Your task to perform on an android device: Open the web browser Image 0: 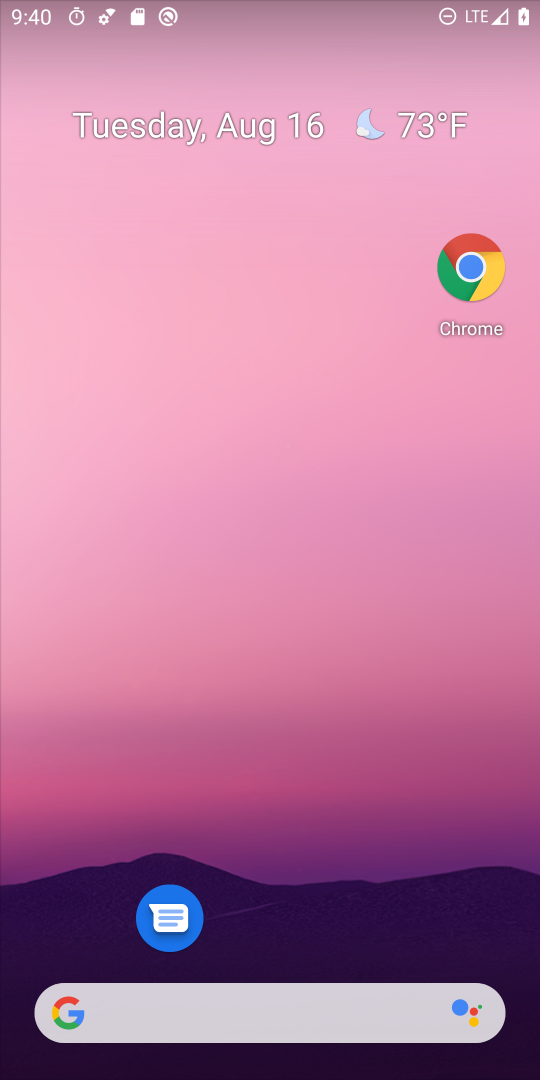
Step 0: drag from (220, 988) to (269, 192)
Your task to perform on an android device: Open the web browser Image 1: 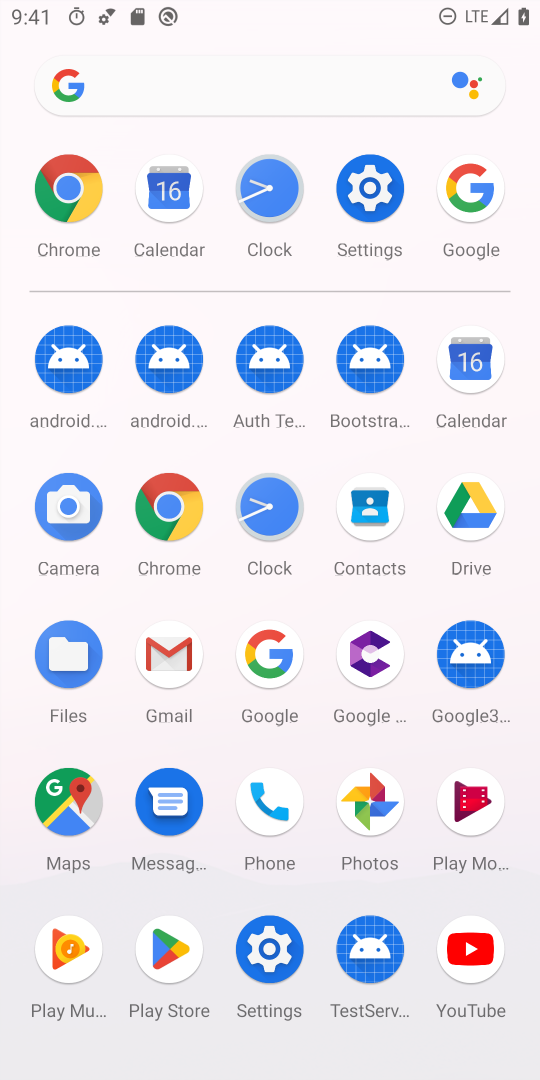
Step 1: drag from (325, 683) to (368, 23)
Your task to perform on an android device: Open the web browser Image 2: 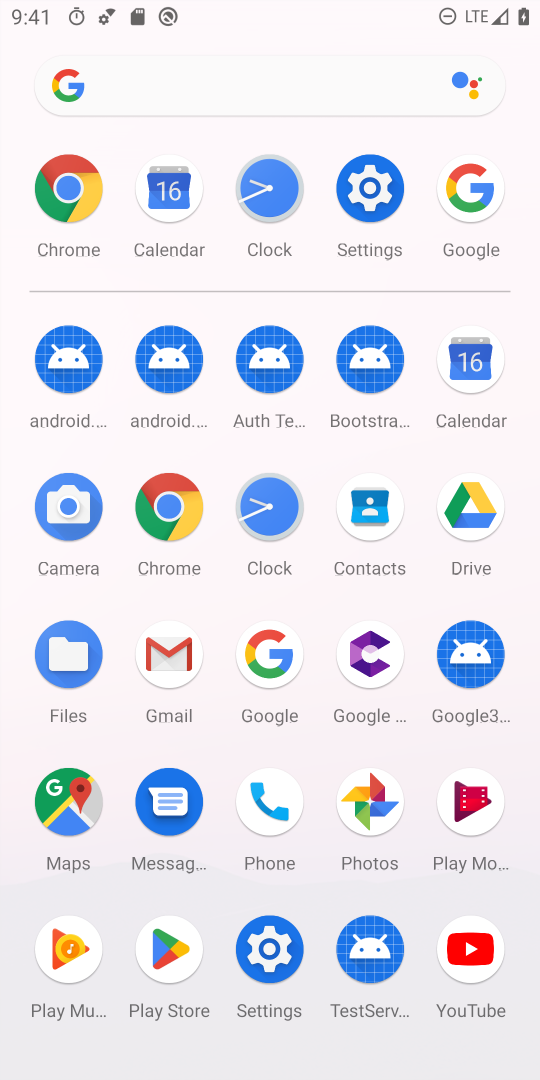
Step 2: click (59, 244)
Your task to perform on an android device: Open the web browser Image 3: 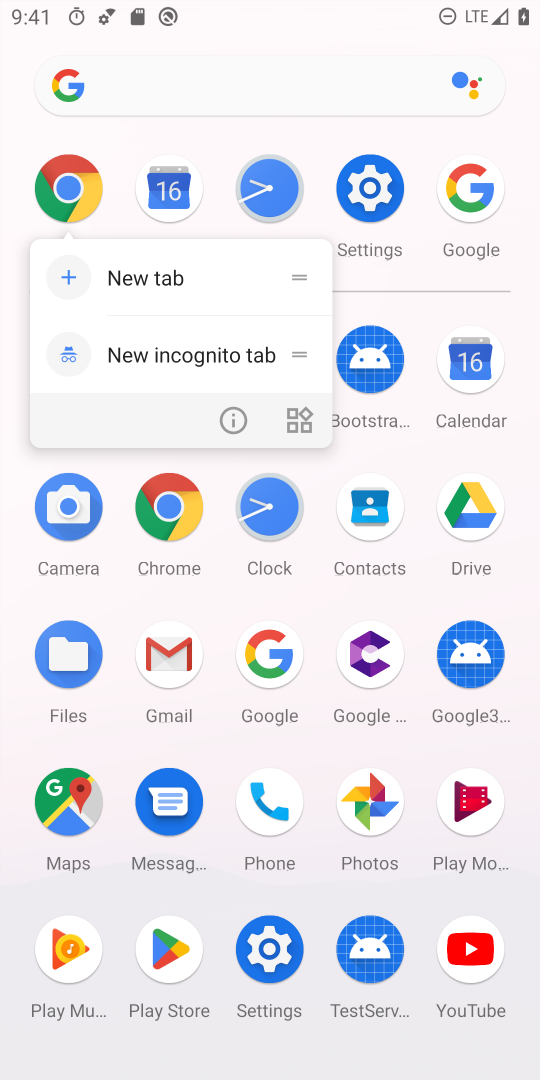
Step 3: click (59, 204)
Your task to perform on an android device: Open the web browser Image 4: 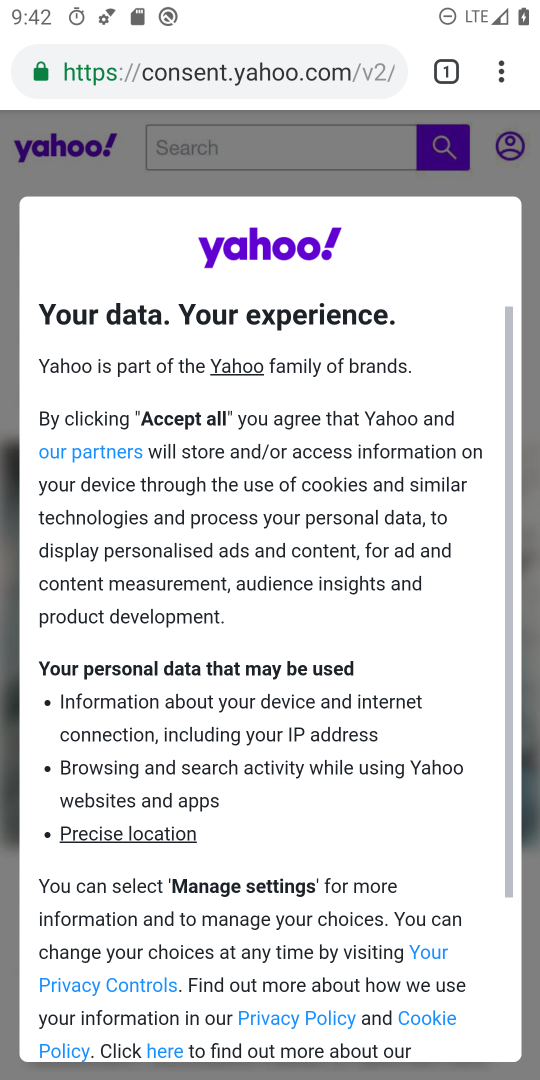
Step 4: task complete